Your task to perform on an android device: check battery use Image 0: 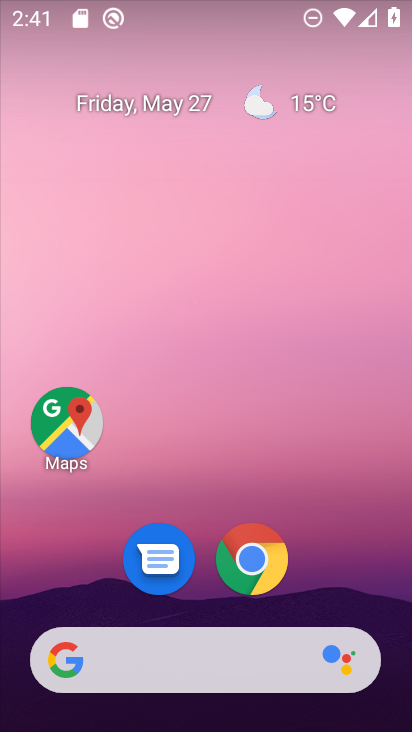
Step 0: drag from (316, 596) to (258, 3)
Your task to perform on an android device: check battery use Image 1: 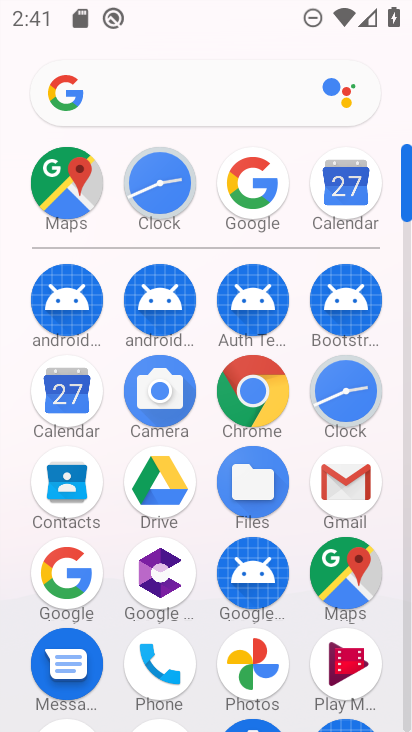
Step 1: drag from (285, 599) to (311, 195)
Your task to perform on an android device: check battery use Image 2: 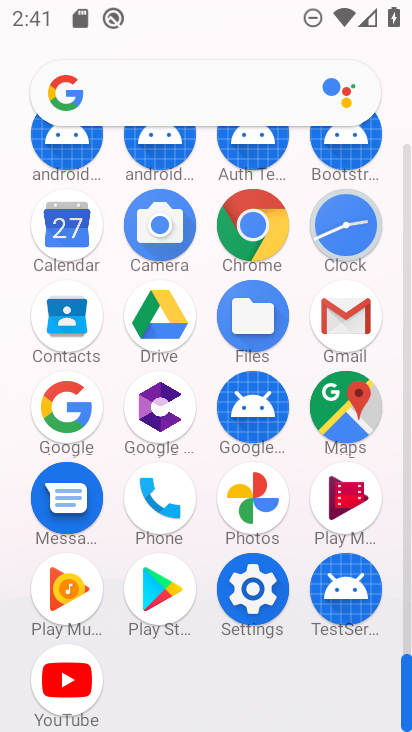
Step 2: click (246, 601)
Your task to perform on an android device: check battery use Image 3: 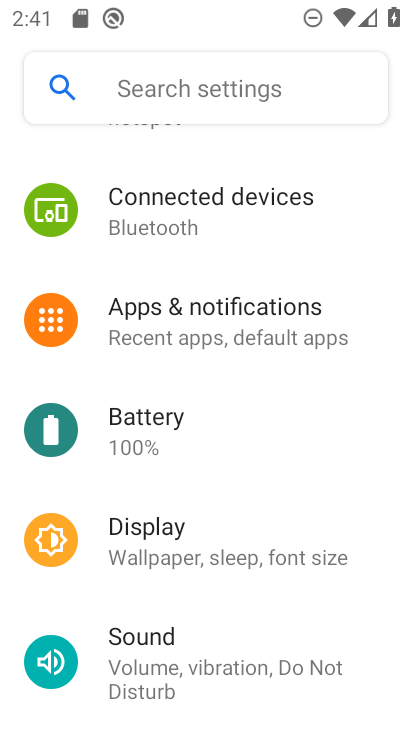
Step 3: click (205, 432)
Your task to perform on an android device: check battery use Image 4: 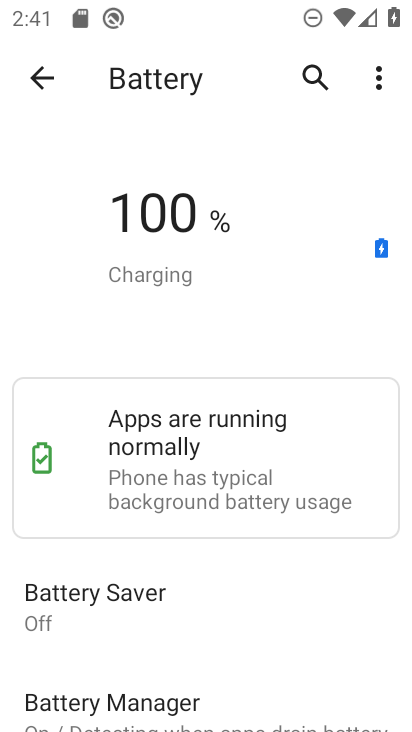
Step 4: task complete